Your task to perform on an android device: clear history in the chrome app Image 0: 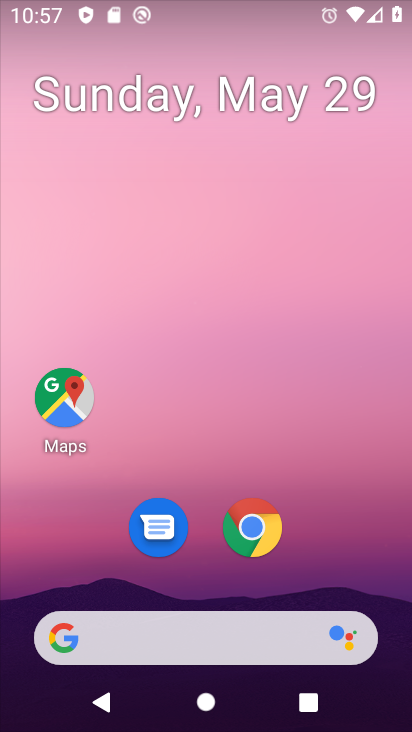
Step 0: click (248, 531)
Your task to perform on an android device: clear history in the chrome app Image 1: 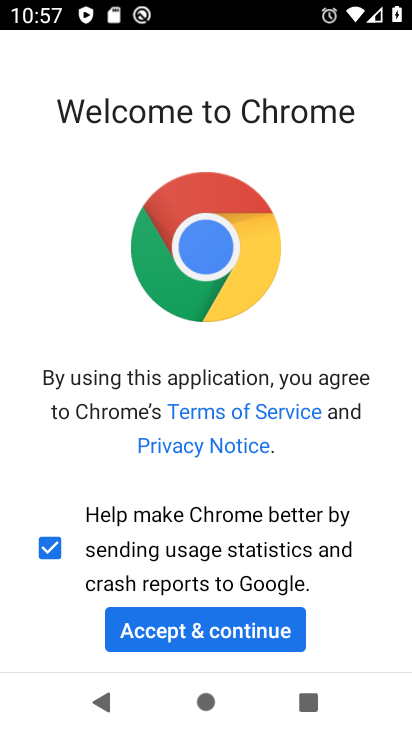
Step 1: click (200, 636)
Your task to perform on an android device: clear history in the chrome app Image 2: 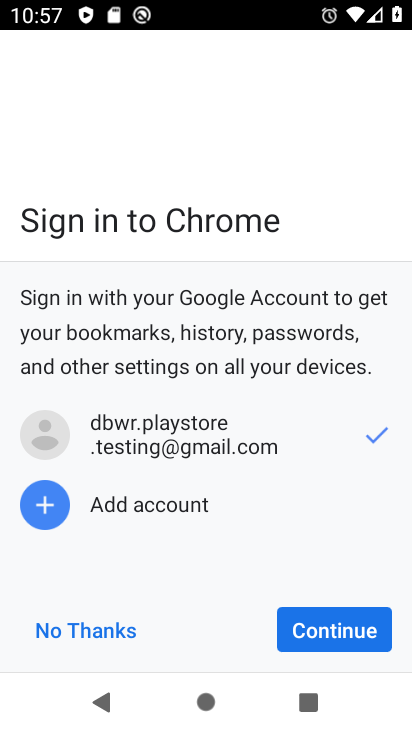
Step 2: click (338, 641)
Your task to perform on an android device: clear history in the chrome app Image 3: 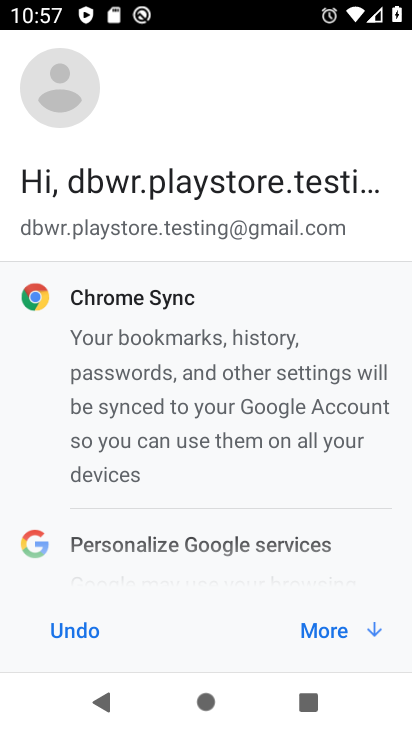
Step 3: click (311, 666)
Your task to perform on an android device: clear history in the chrome app Image 4: 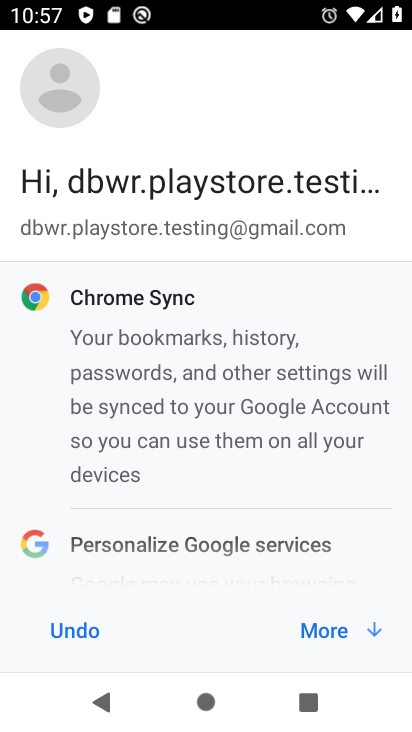
Step 4: click (314, 646)
Your task to perform on an android device: clear history in the chrome app Image 5: 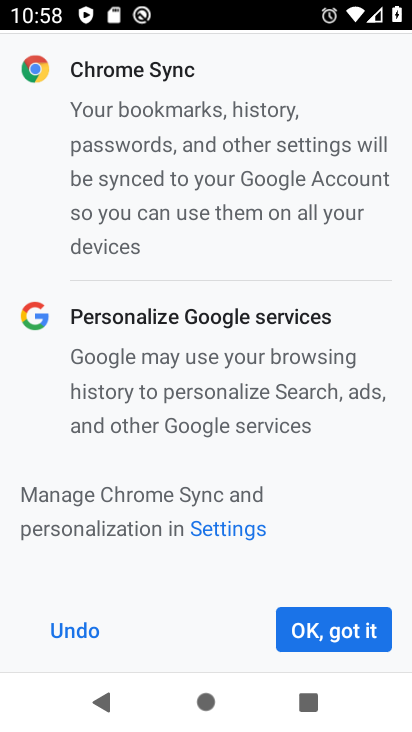
Step 5: click (314, 646)
Your task to perform on an android device: clear history in the chrome app Image 6: 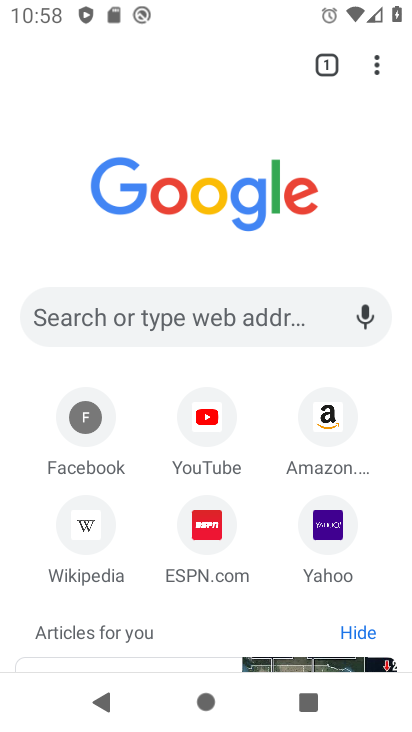
Step 6: click (391, 61)
Your task to perform on an android device: clear history in the chrome app Image 7: 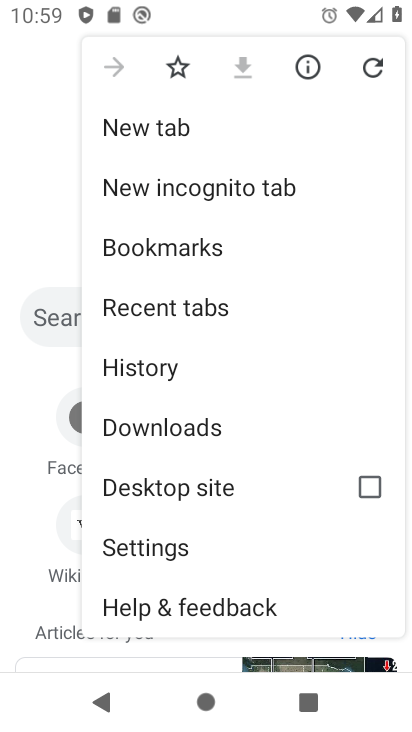
Step 7: drag from (134, 531) to (179, 213)
Your task to perform on an android device: clear history in the chrome app Image 8: 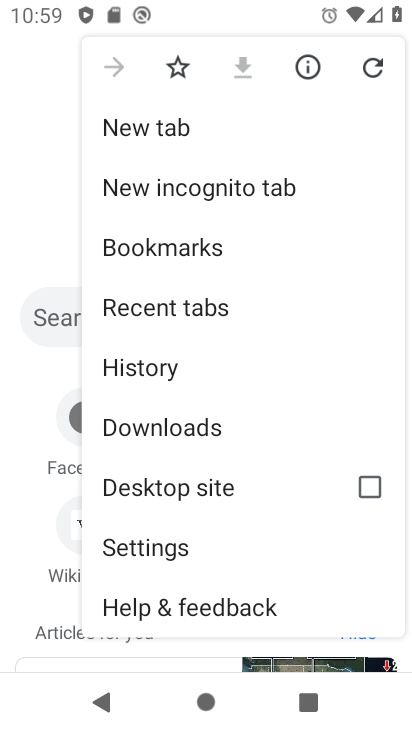
Step 8: click (142, 360)
Your task to perform on an android device: clear history in the chrome app Image 9: 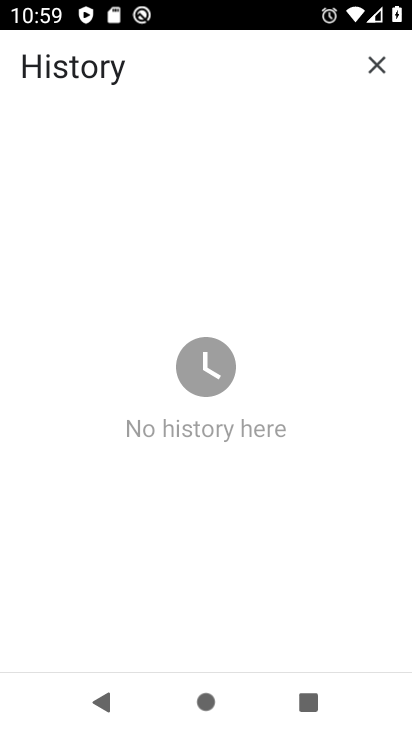
Step 9: task complete